Your task to perform on an android device: Open eBay Image 0: 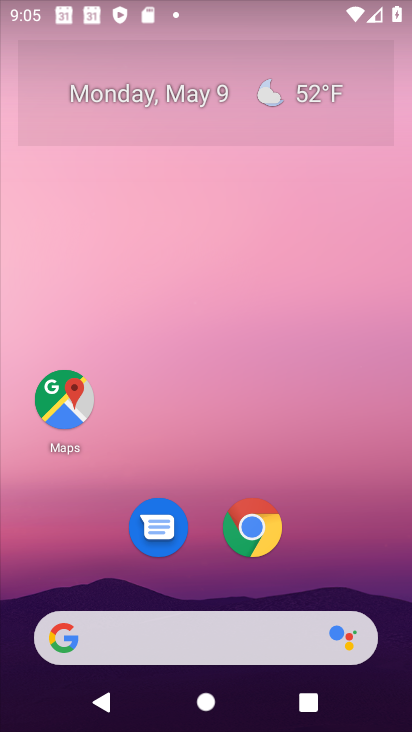
Step 0: drag from (346, 551) to (352, 111)
Your task to perform on an android device: Open eBay Image 1: 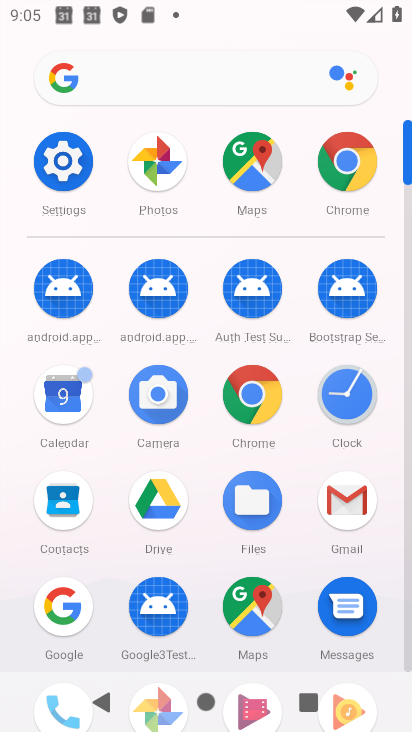
Step 1: click (334, 179)
Your task to perform on an android device: Open eBay Image 2: 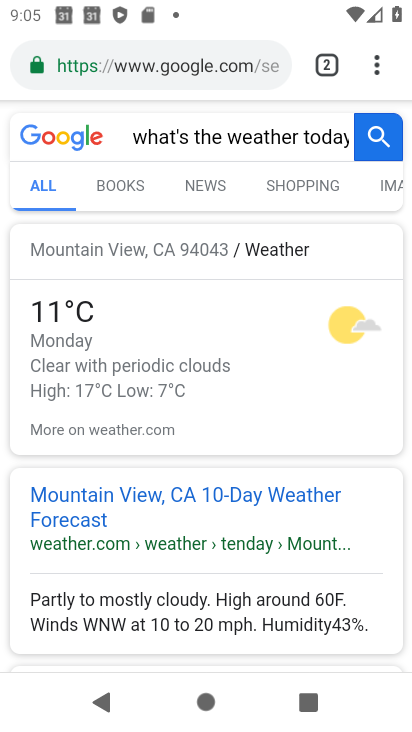
Step 2: click (237, 138)
Your task to perform on an android device: Open eBay Image 3: 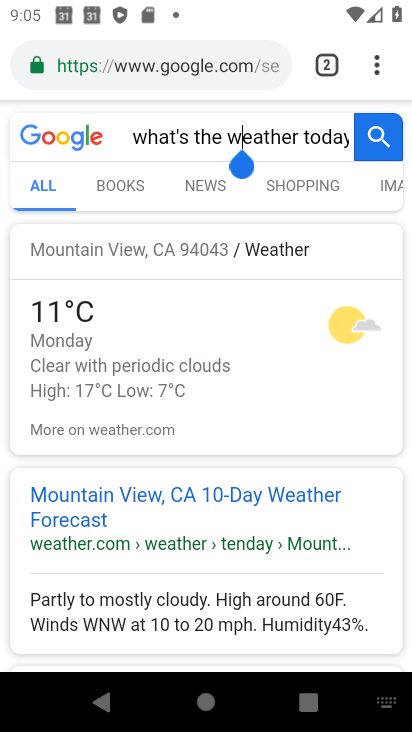
Step 3: click (208, 58)
Your task to perform on an android device: Open eBay Image 4: 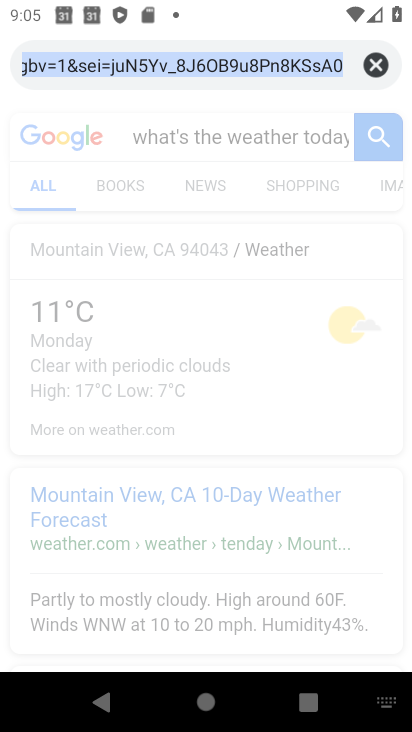
Step 4: click (375, 71)
Your task to perform on an android device: Open eBay Image 5: 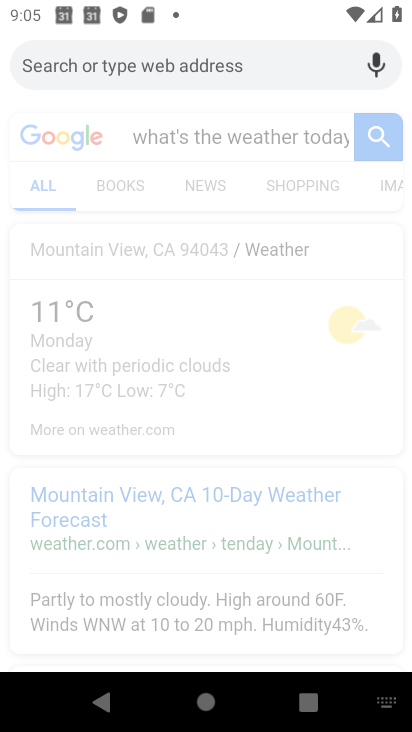
Step 5: type "ebay"
Your task to perform on an android device: Open eBay Image 6: 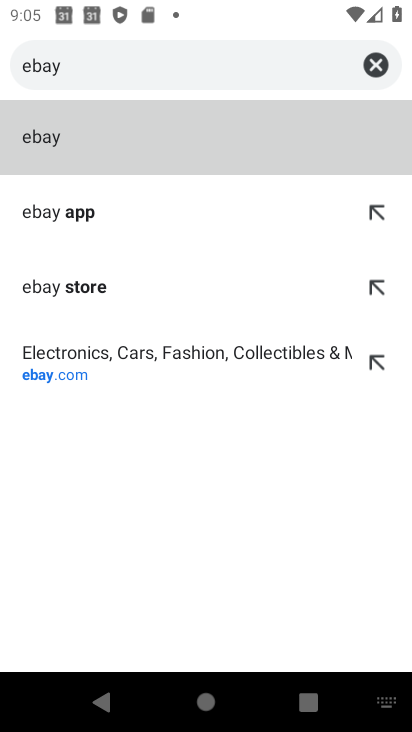
Step 6: click (185, 152)
Your task to perform on an android device: Open eBay Image 7: 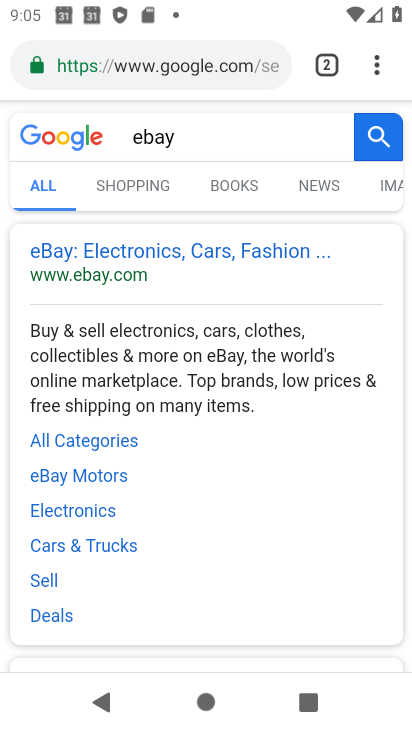
Step 7: click (106, 244)
Your task to perform on an android device: Open eBay Image 8: 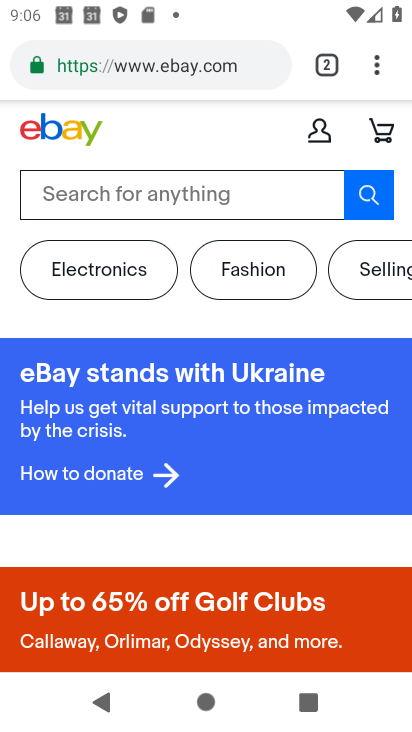
Step 8: task complete